Your task to perform on an android device: visit the assistant section in the google photos Image 0: 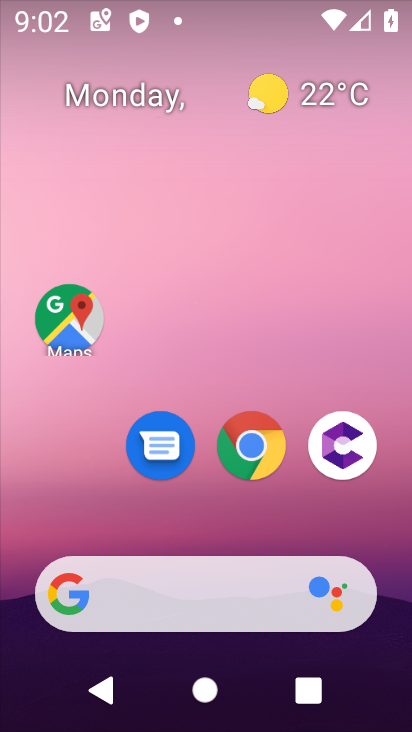
Step 0: press home button
Your task to perform on an android device: visit the assistant section in the google photos Image 1: 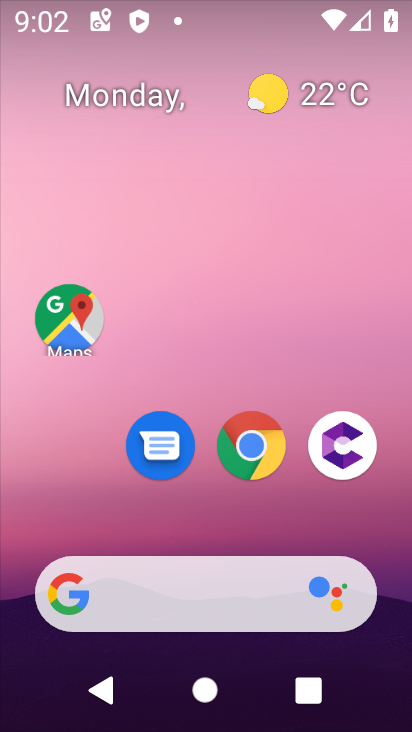
Step 1: drag from (206, 354) to (187, 93)
Your task to perform on an android device: visit the assistant section in the google photos Image 2: 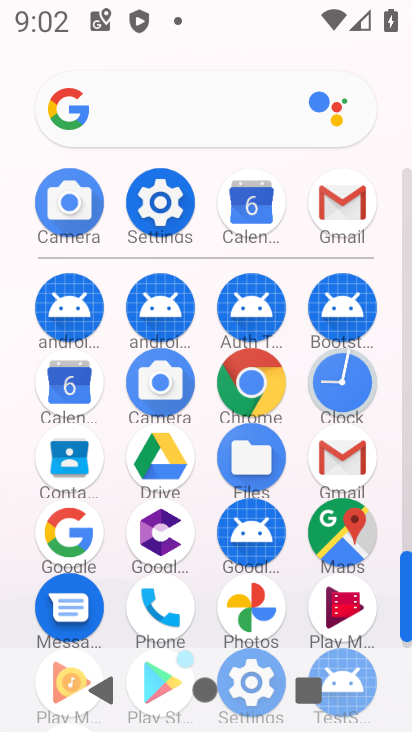
Step 2: click (252, 613)
Your task to perform on an android device: visit the assistant section in the google photos Image 3: 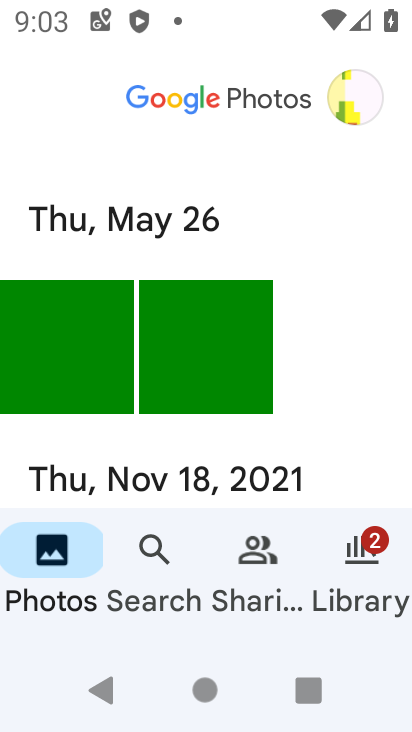
Step 3: task complete